Your task to perform on an android device: empty trash in google photos Image 0: 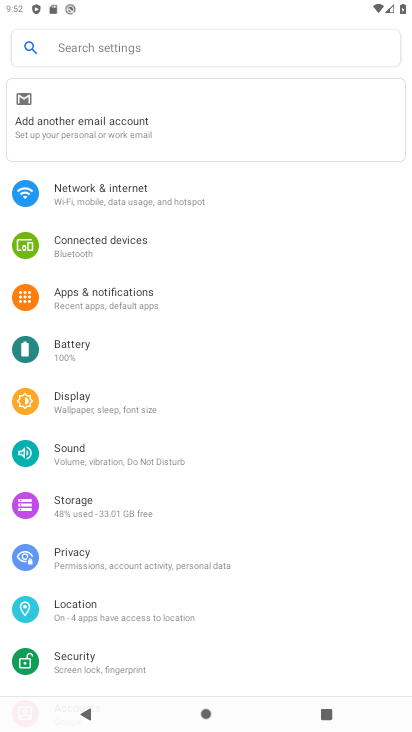
Step 0: press home button
Your task to perform on an android device: empty trash in google photos Image 1: 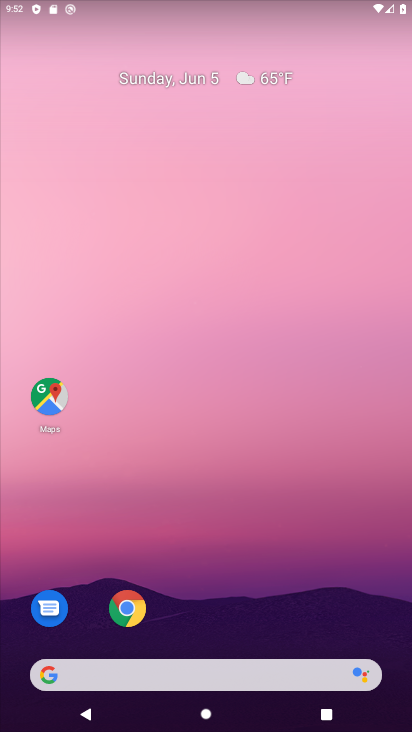
Step 1: drag from (194, 667) to (200, 102)
Your task to perform on an android device: empty trash in google photos Image 2: 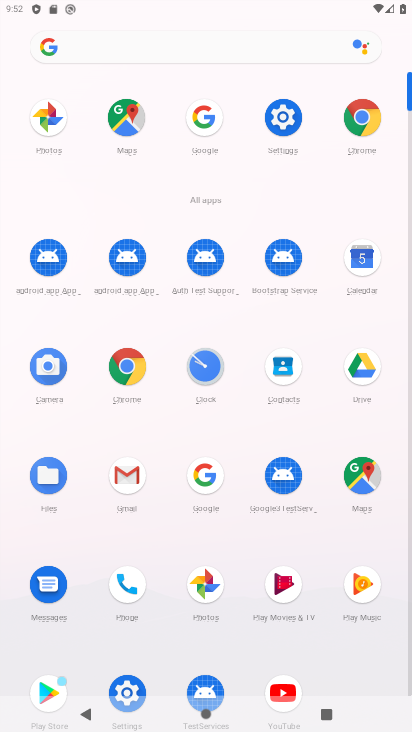
Step 2: click (213, 590)
Your task to perform on an android device: empty trash in google photos Image 3: 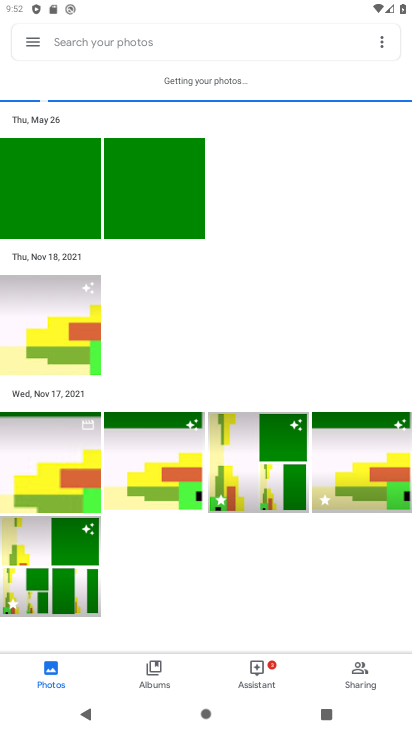
Step 3: click (33, 44)
Your task to perform on an android device: empty trash in google photos Image 4: 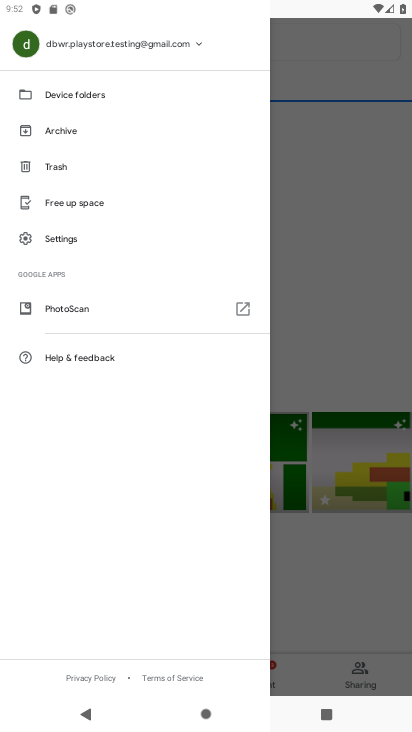
Step 4: click (40, 168)
Your task to perform on an android device: empty trash in google photos Image 5: 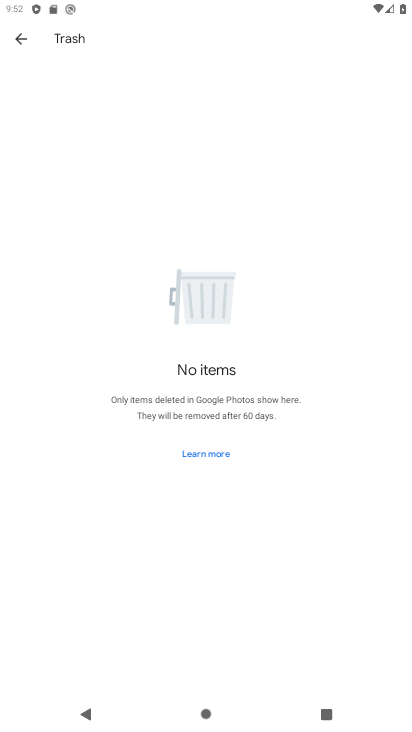
Step 5: task complete